Your task to perform on an android device: change the clock display to analog Image 0: 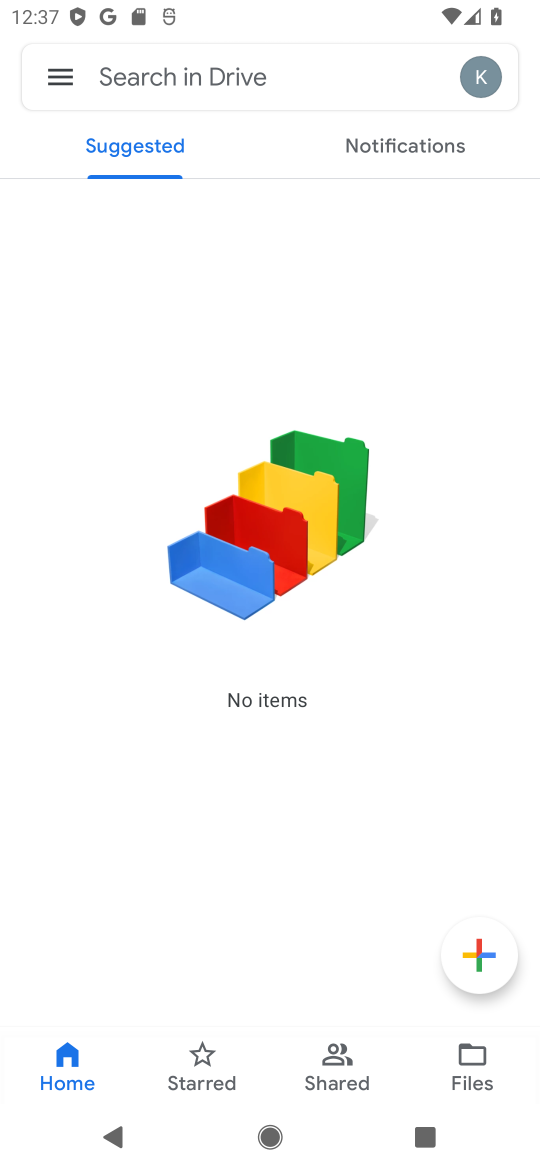
Step 0: press home button
Your task to perform on an android device: change the clock display to analog Image 1: 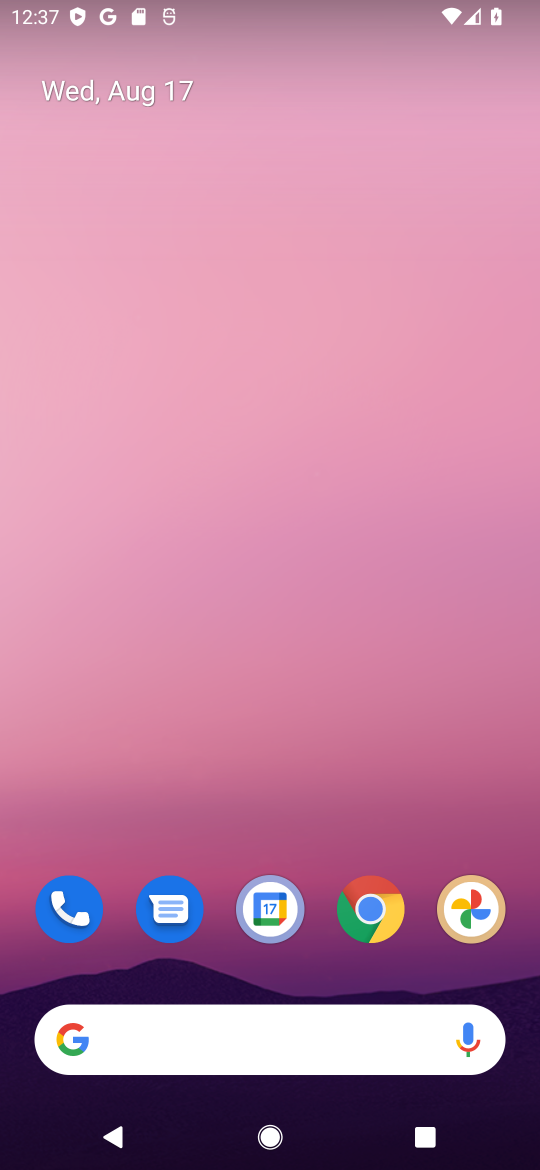
Step 1: drag from (326, 812) to (286, 109)
Your task to perform on an android device: change the clock display to analog Image 2: 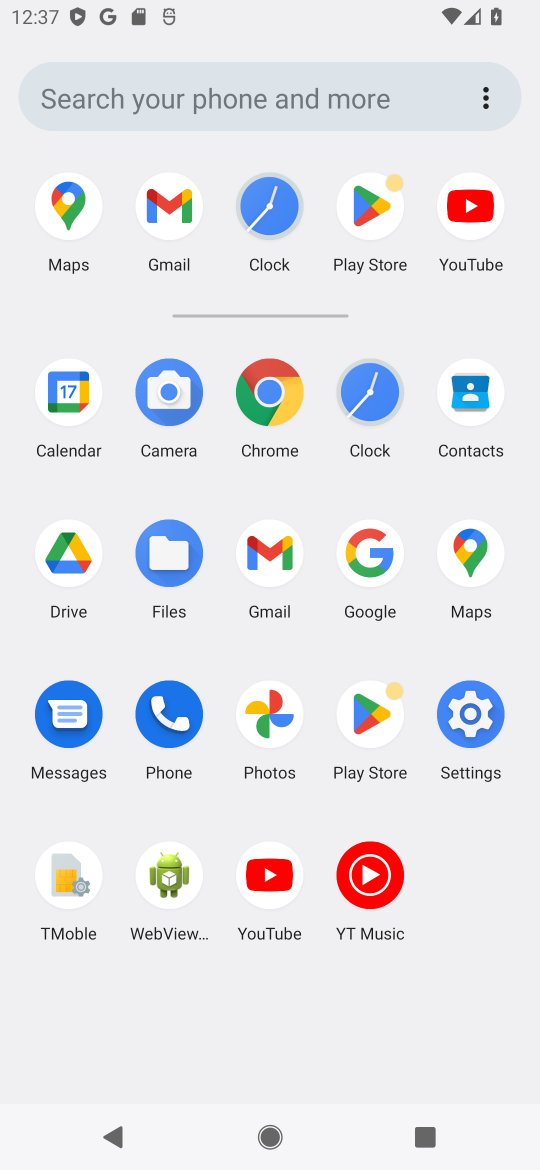
Step 2: click (266, 200)
Your task to perform on an android device: change the clock display to analog Image 3: 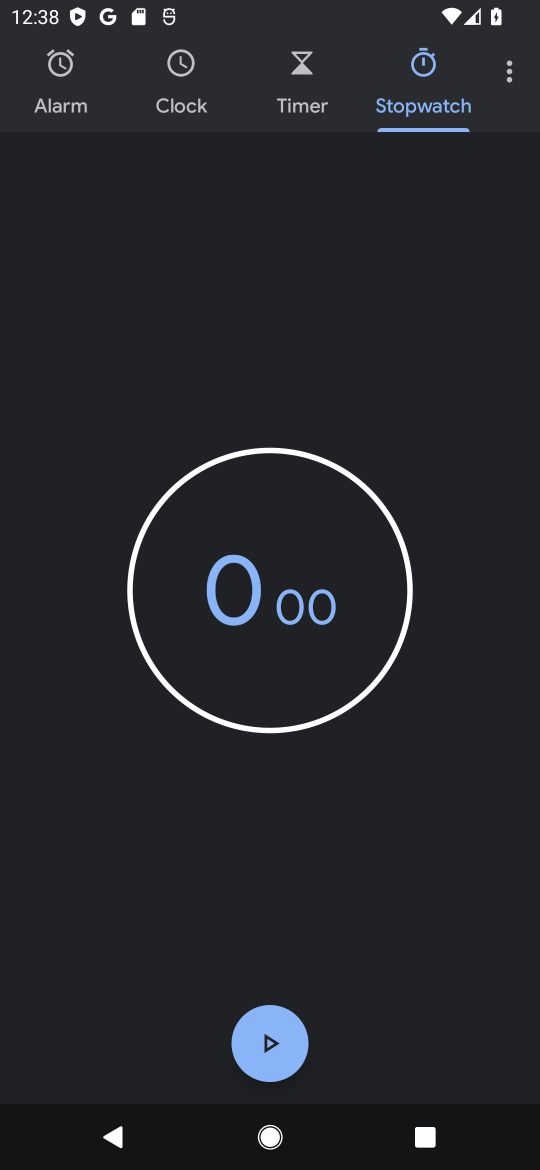
Step 3: click (516, 56)
Your task to perform on an android device: change the clock display to analog Image 4: 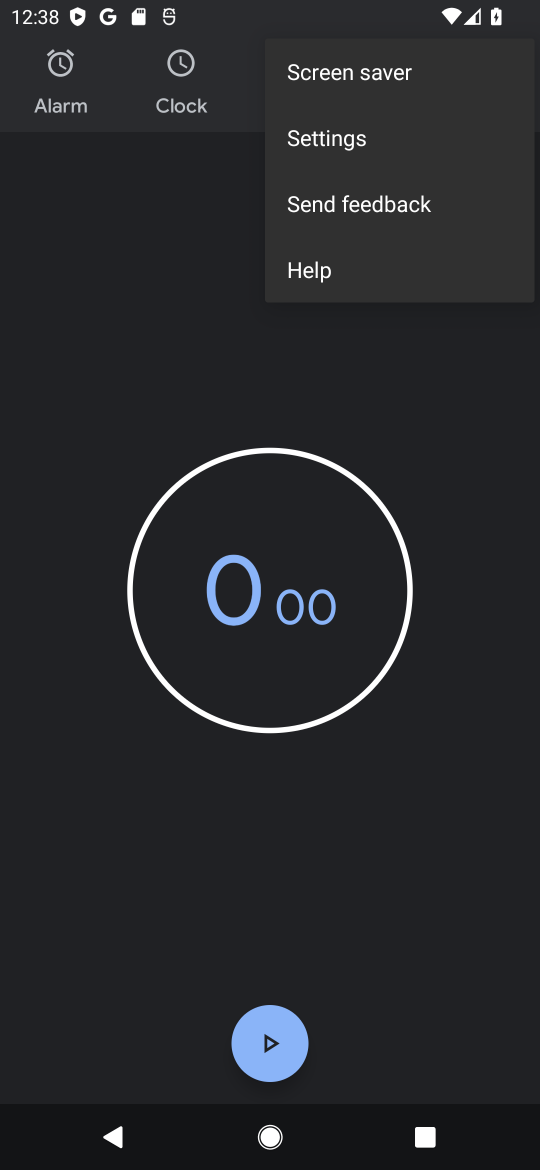
Step 4: click (355, 135)
Your task to perform on an android device: change the clock display to analog Image 5: 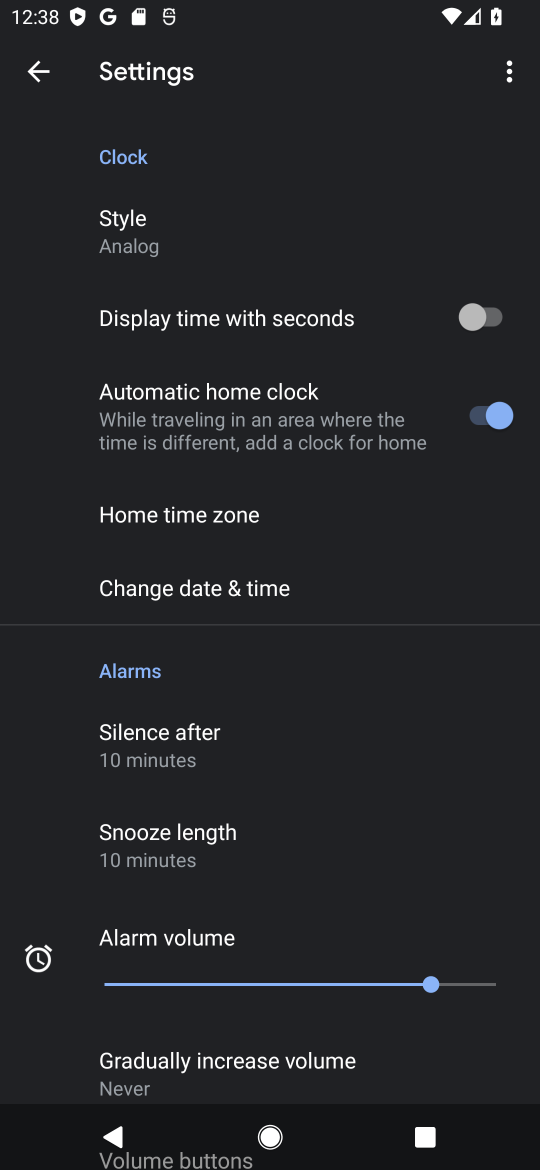
Step 5: click (136, 209)
Your task to perform on an android device: change the clock display to analog Image 6: 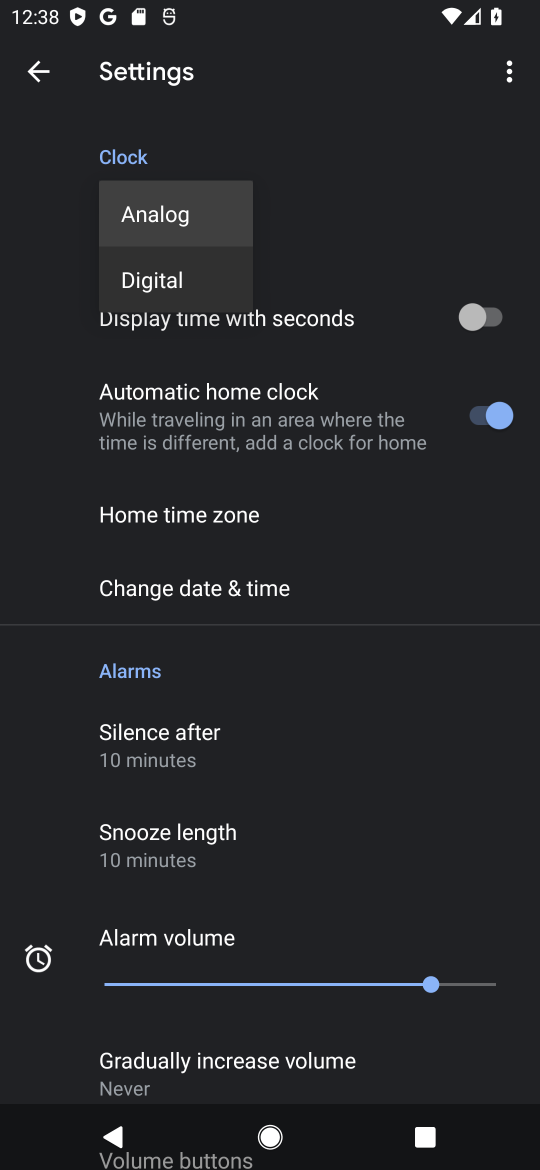
Step 6: click (151, 215)
Your task to perform on an android device: change the clock display to analog Image 7: 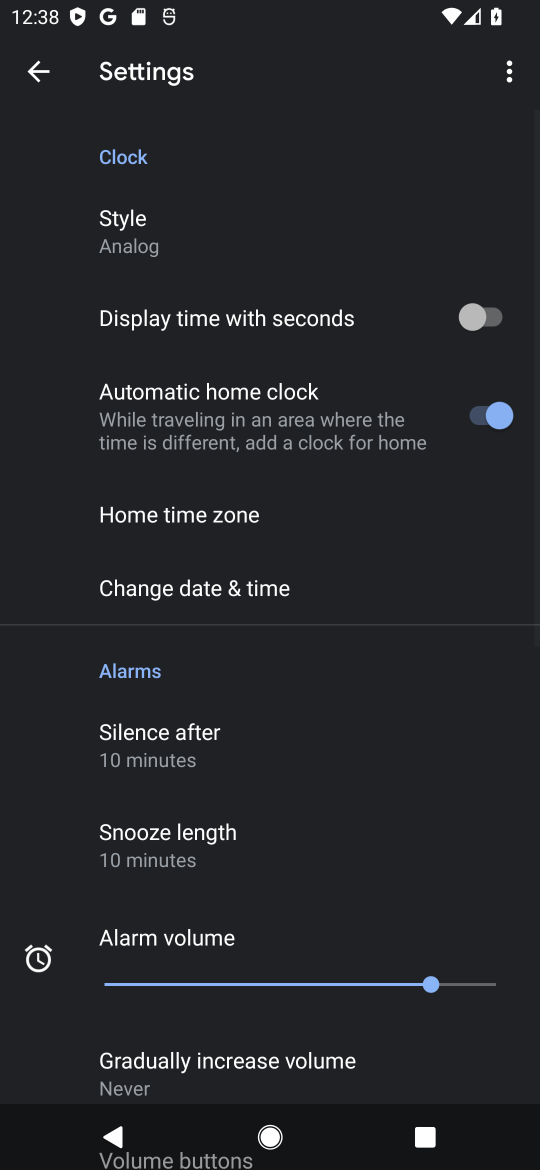
Step 7: task complete